Your task to perform on an android device: turn off improve location accuracy Image 0: 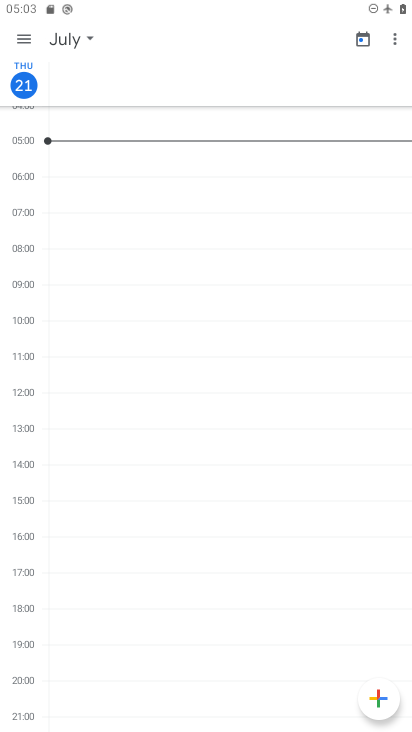
Step 0: press home button
Your task to perform on an android device: turn off improve location accuracy Image 1: 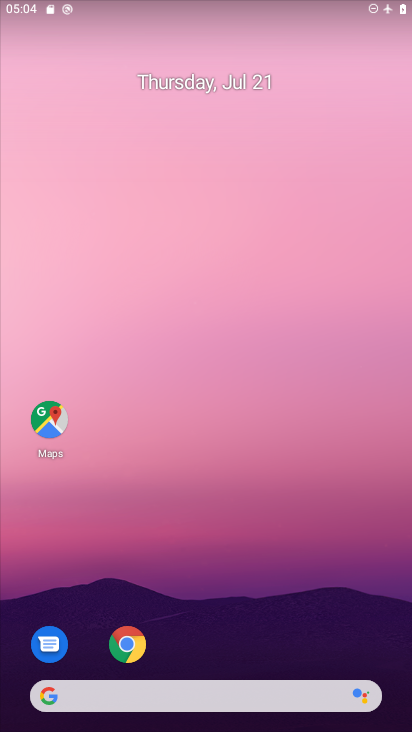
Step 1: drag from (204, 538) to (240, 242)
Your task to perform on an android device: turn off improve location accuracy Image 2: 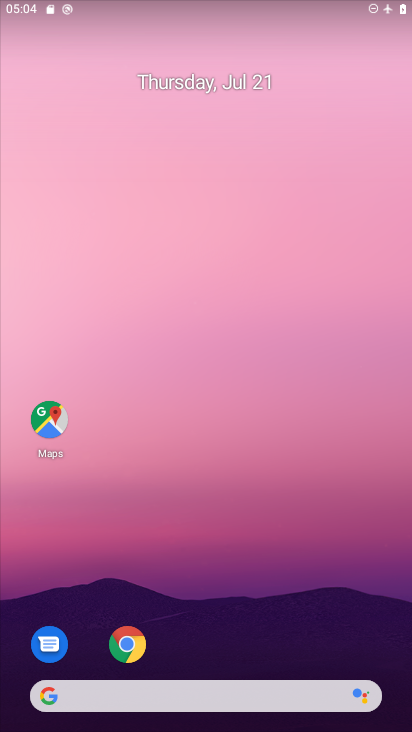
Step 2: drag from (206, 526) to (191, 180)
Your task to perform on an android device: turn off improve location accuracy Image 3: 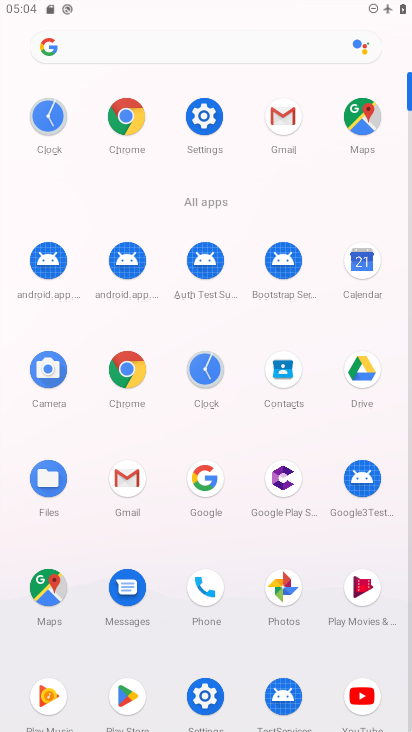
Step 3: click (197, 122)
Your task to perform on an android device: turn off improve location accuracy Image 4: 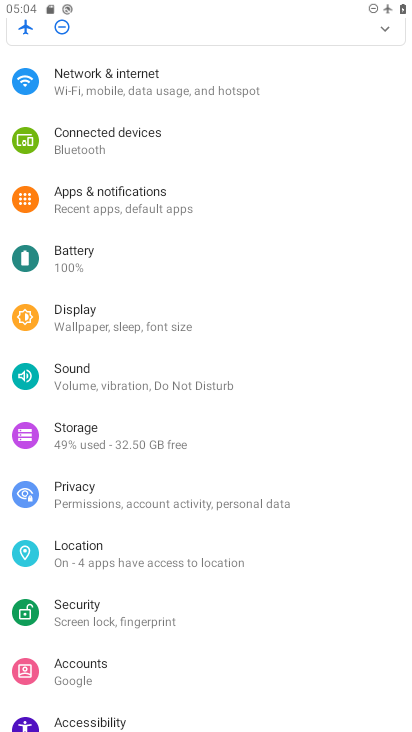
Step 4: click (80, 566)
Your task to perform on an android device: turn off improve location accuracy Image 5: 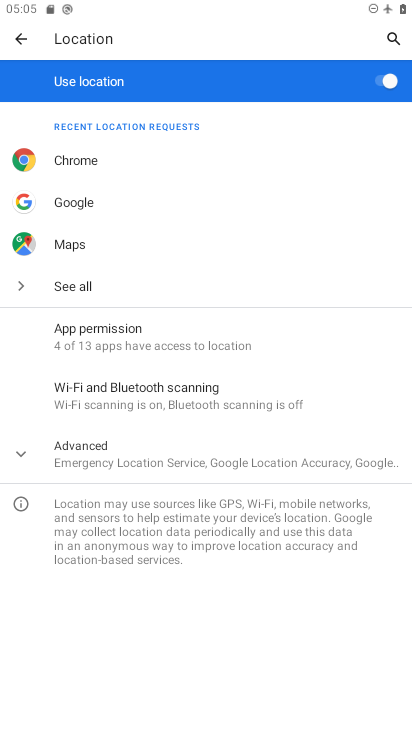
Step 5: click (94, 459)
Your task to perform on an android device: turn off improve location accuracy Image 6: 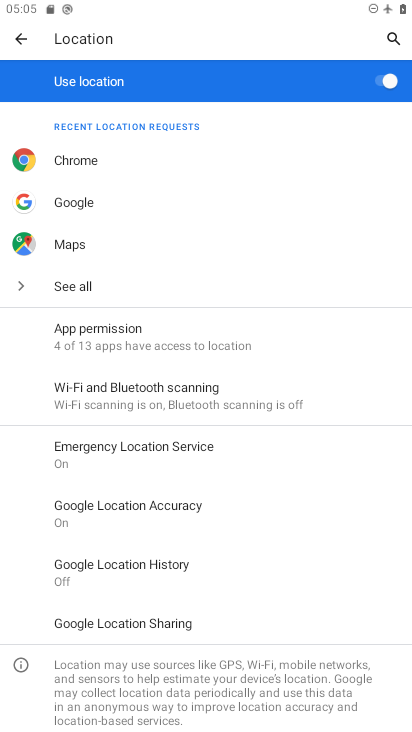
Step 6: click (91, 519)
Your task to perform on an android device: turn off improve location accuracy Image 7: 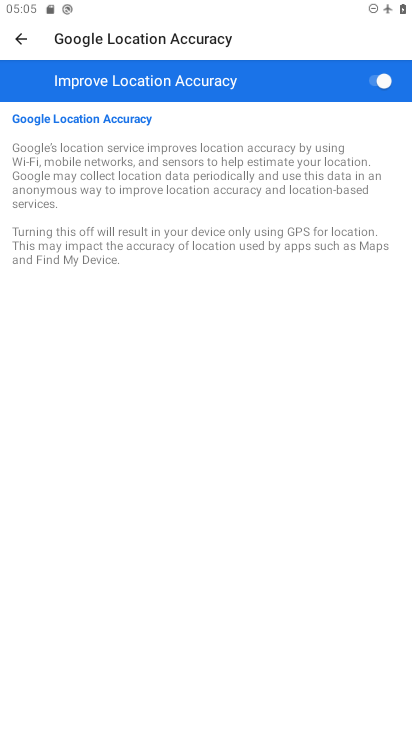
Step 7: click (368, 79)
Your task to perform on an android device: turn off improve location accuracy Image 8: 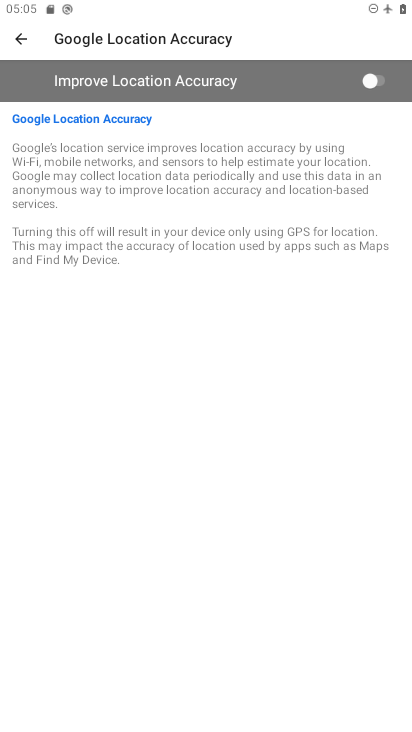
Step 8: task complete